Your task to perform on an android device: Set the phone to "Do not disturb". Image 0: 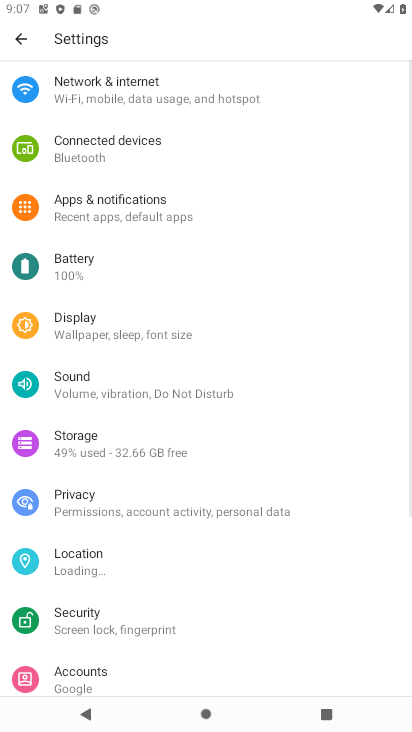
Step 0: press home button
Your task to perform on an android device: Set the phone to "Do not disturb". Image 1: 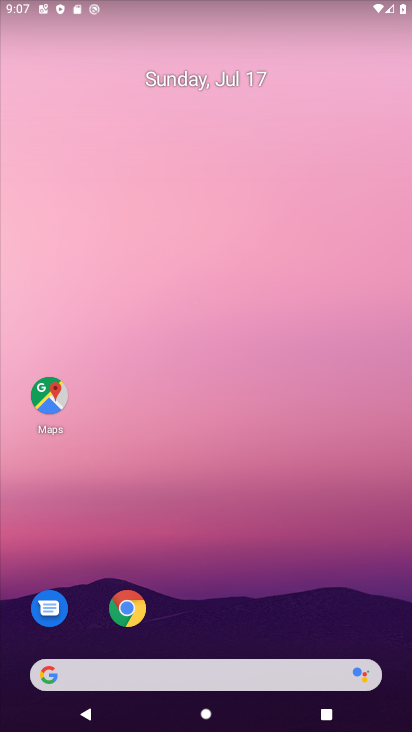
Step 1: drag from (196, 669) to (155, 184)
Your task to perform on an android device: Set the phone to "Do not disturb". Image 2: 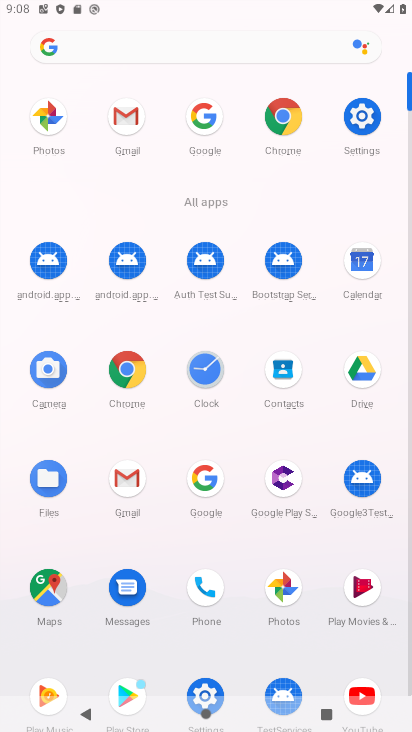
Step 2: click (361, 115)
Your task to perform on an android device: Set the phone to "Do not disturb". Image 3: 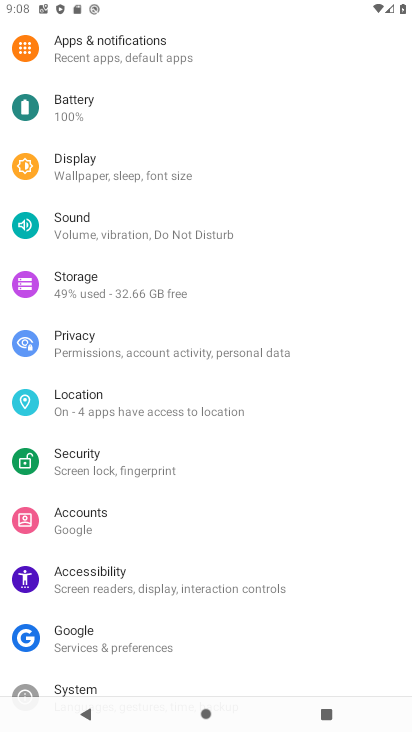
Step 3: drag from (179, 193) to (167, 319)
Your task to perform on an android device: Set the phone to "Do not disturb". Image 4: 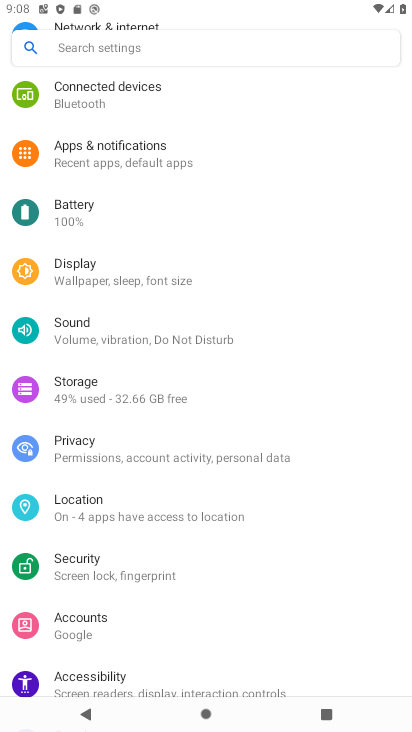
Step 4: drag from (240, 184) to (255, 343)
Your task to perform on an android device: Set the phone to "Do not disturb". Image 5: 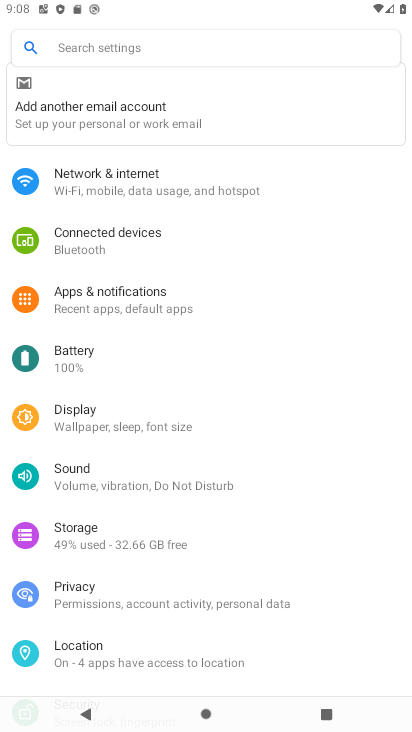
Step 5: click (129, 488)
Your task to perform on an android device: Set the phone to "Do not disturb". Image 6: 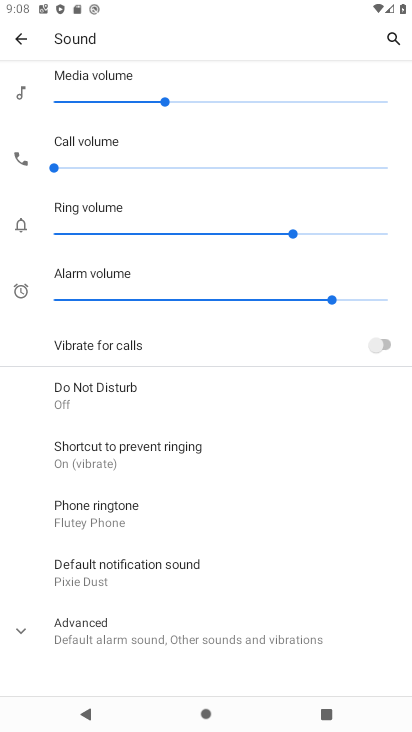
Step 6: click (114, 386)
Your task to perform on an android device: Set the phone to "Do not disturb". Image 7: 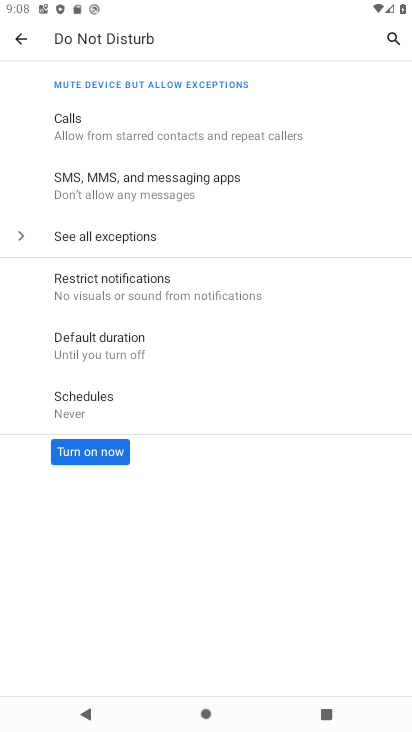
Step 7: click (97, 451)
Your task to perform on an android device: Set the phone to "Do not disturb". Image 8: 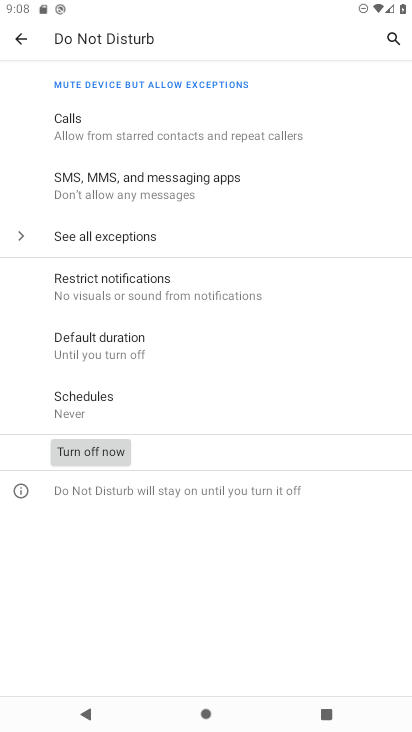
Step 8: task complete